Your task to perform on an android device: toggle show notifications on the lock screen Image 0: 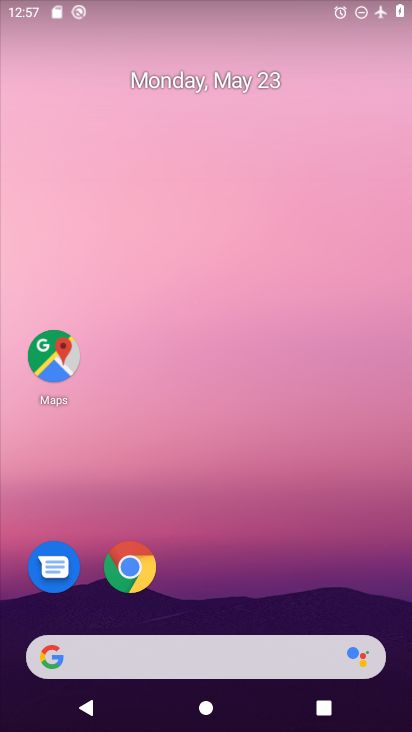
Step 0: drag from (226, 594) to (233, 103)
Your task to perform on an android device: toggle show notifications on the lock screen Image 1: 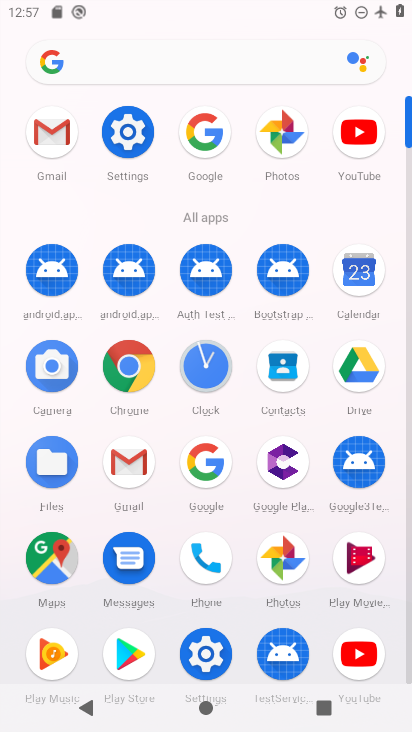
Step 1: click (132, 138)
Your task to perform on an android device: toggle show notifications on the lock screen Image 2: 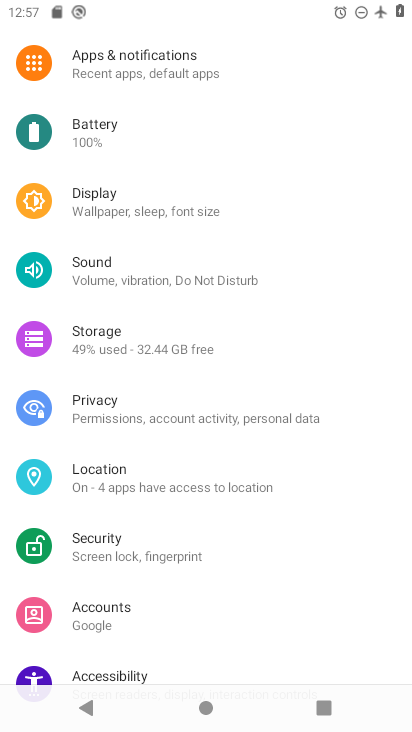
Step 2: click (152, 77)
Your task to perform on an android device: toggle show notifications on the lock screen Image 3: 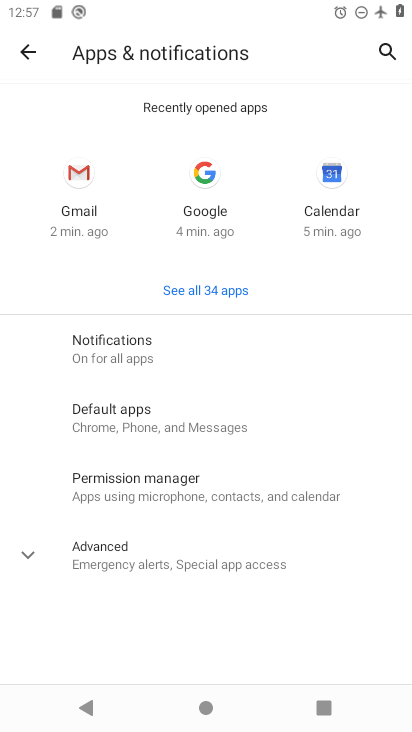
Step 3: click (154, 358)
Your task to perform on an android device: toggle show notifications on the lock screen Image 4: 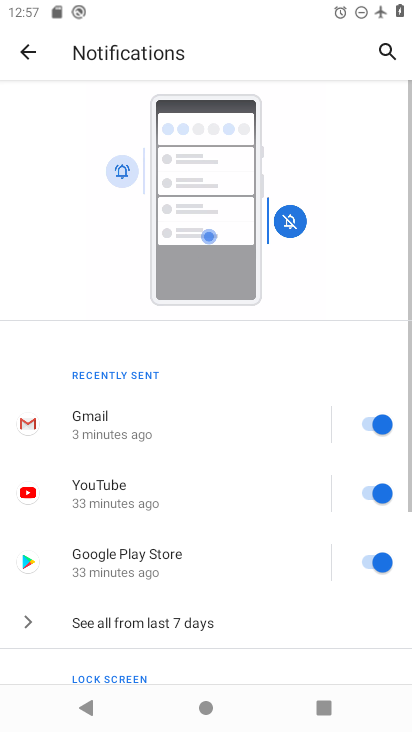
Step 4: drag from (195, 630) to (239, 398)
Your task to perform on an android device: toggle show notifications on the lock screen Image 5: 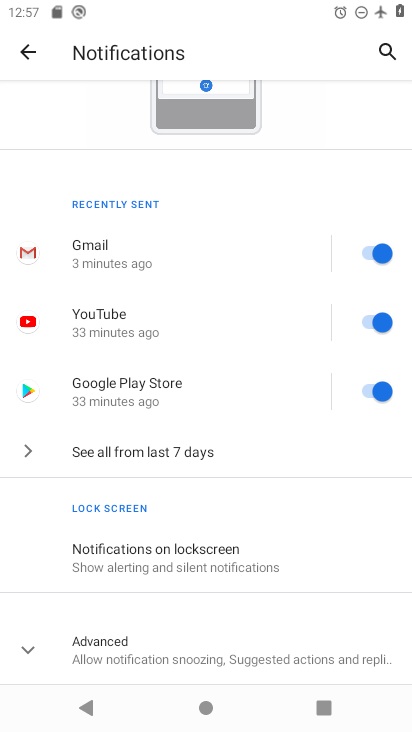
Step 5: click (225, 544)
Your task to perform on an android device: toggle show notifications on the lock screen Image 6: 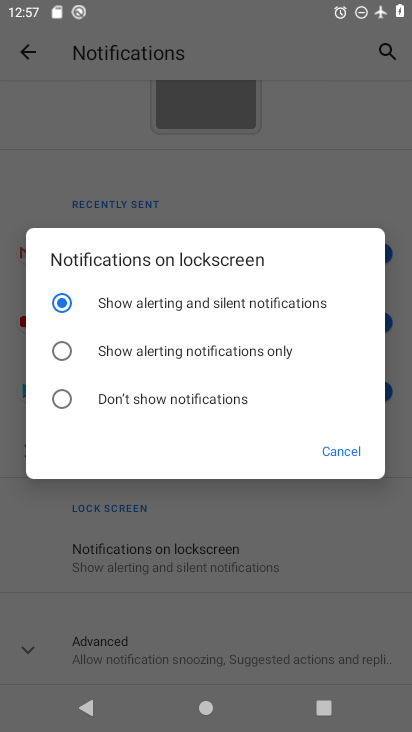
Step 6: click (218, 409)
Your task to perform on an android device: toggle show notifications on the lock screen Image 7: 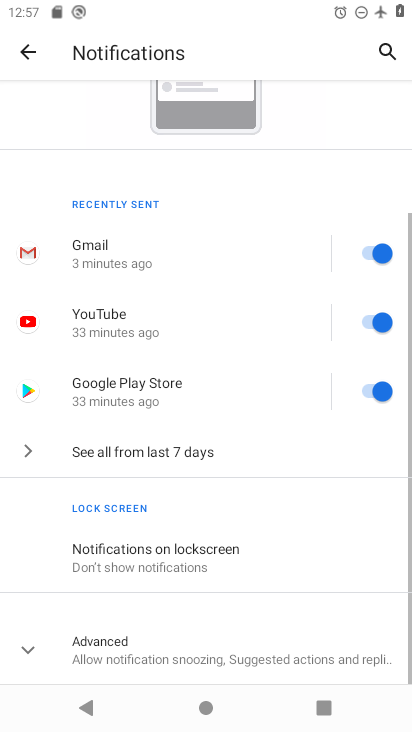
Step 7: task complete